Your task to perform on an android device: turn off picture-in-picture Image 0: 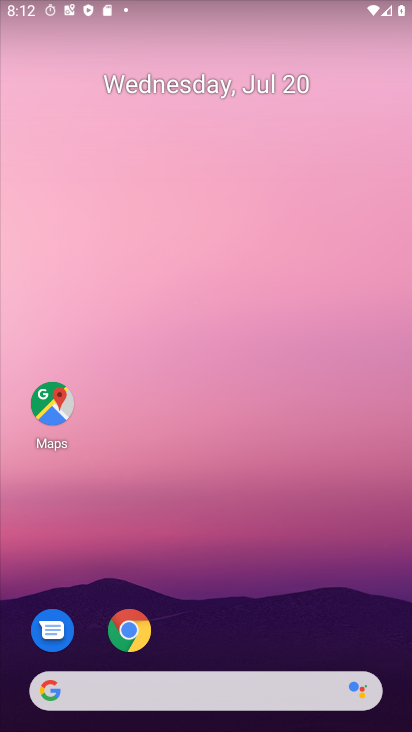
Step 0: drag from (200, 682) to (184, 194)
Your task to perform on an android device: turn off picture-in-picture Image 1: 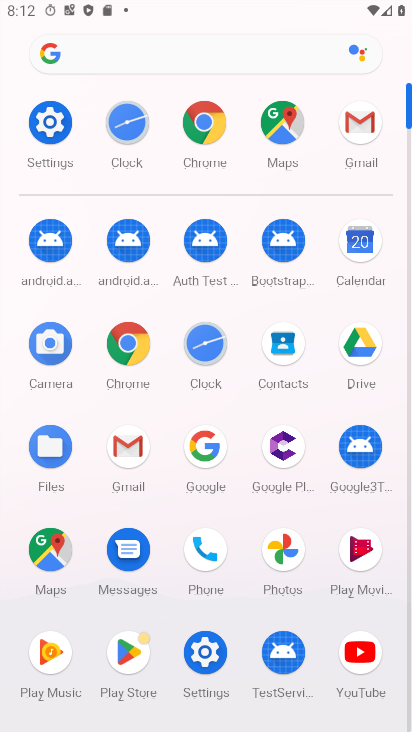
Step 1: click (200, 667)
Your task to perform on an android device: turn off picture-in-picture Image 2: 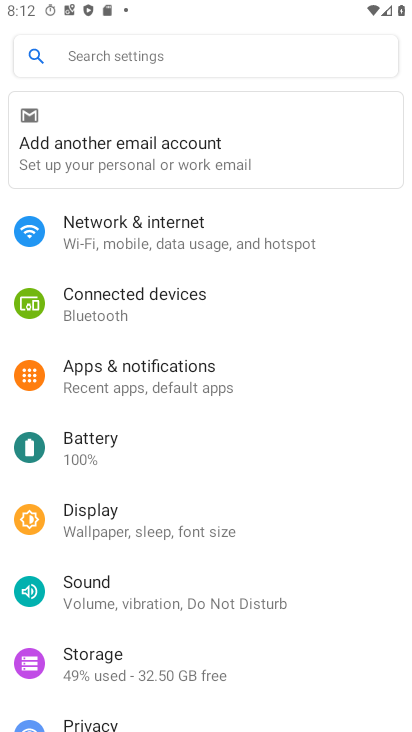
Step 2: drag from (273, 565) to (277, 409)
Your task to perform on an android device: turn off picture-in-picture Image 3: 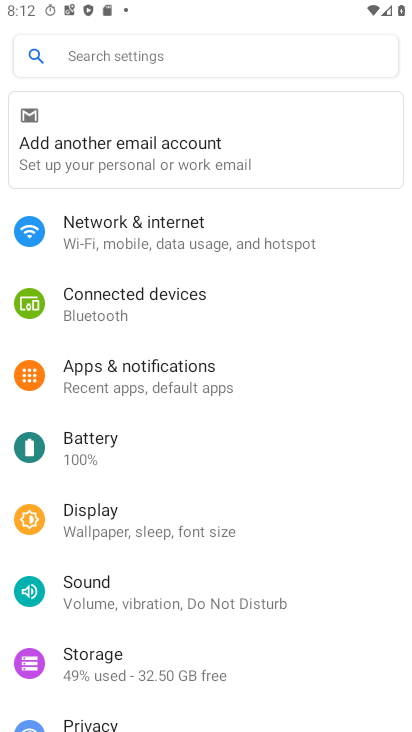
Step 3: drag from (205, 623) to (204, 395)
Your task to perform on an android device: turn off picture-in-picture Image 4: 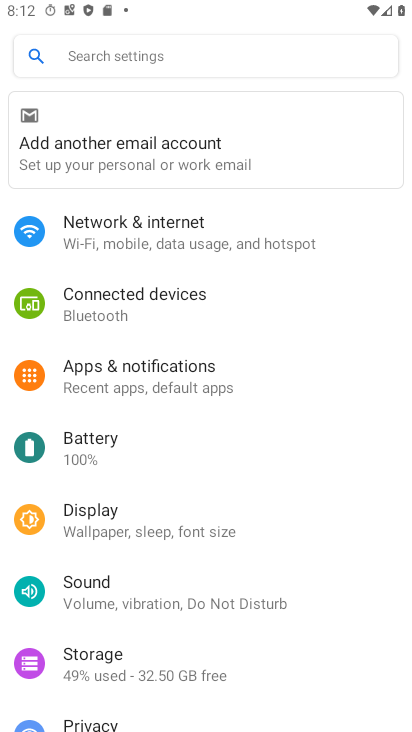
Step 4: drag from (236, 480) to (236, 276)
Your task to perform on an android device: turn off picture-in-picture Image 5: 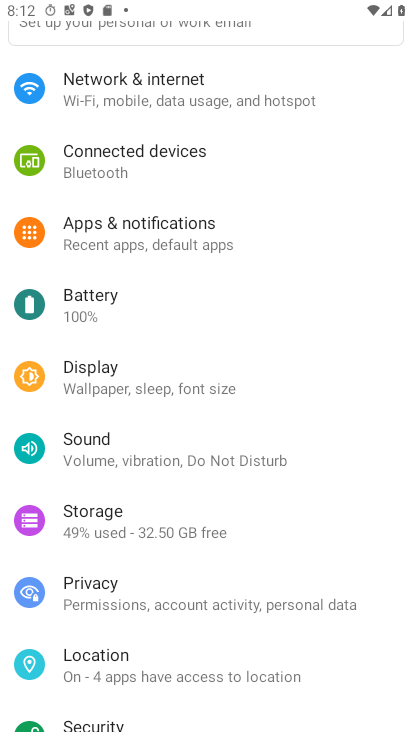
Step 5: drag from (173, 589) to (184, 452)
Your task to perform on an android device: turn off picture-in-picture Image 6: 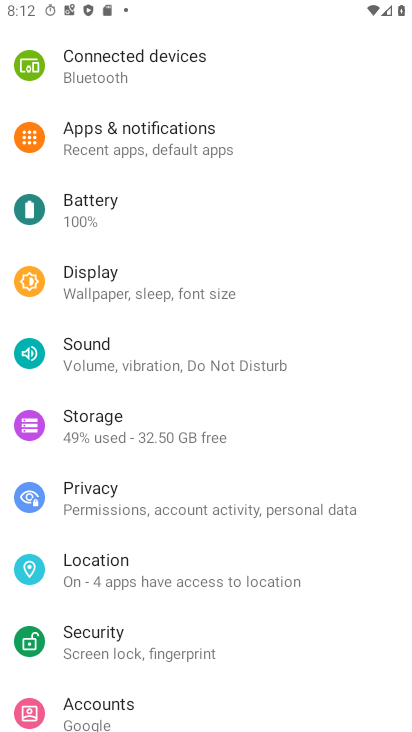
Step 6: click (214, 142)
Your task to perform on an android device: turn off picture-in-picture Image 7: 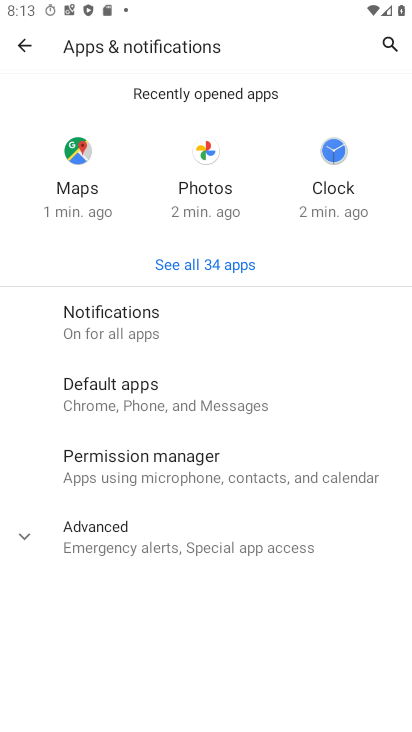
Step 7: click (107, 540)
Your task to perform on an android device: turn off picture-in-picture Image 8: 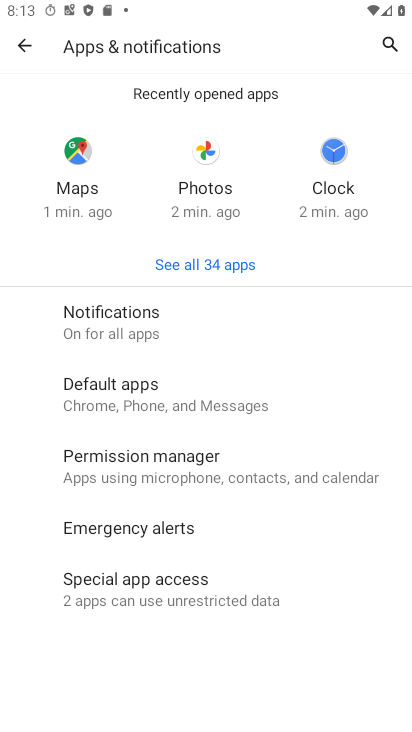
Step 8: click (178, 606)
Your task to perform on an android device: turn off picture-in-picture Image 9: 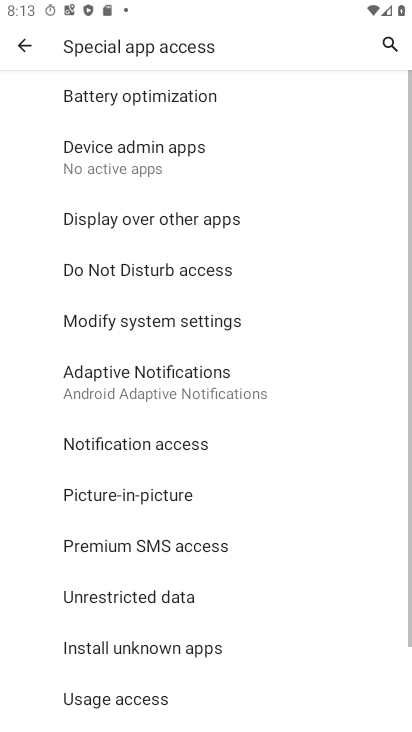
Step 9: drag from (220, 437) to (227, 397)
Your task to perform on an android device: turn off picture-in-picture Image 10: 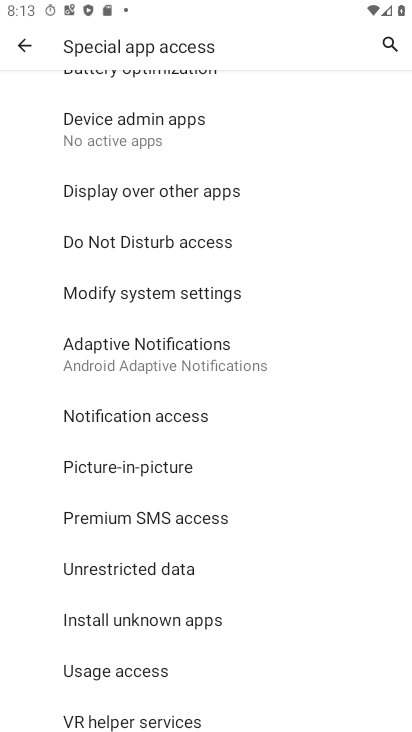
Step 10: drag from (189, 248) to (198, 507)
Your task to perform on an android device: turn off picture-in-picture Image 11: 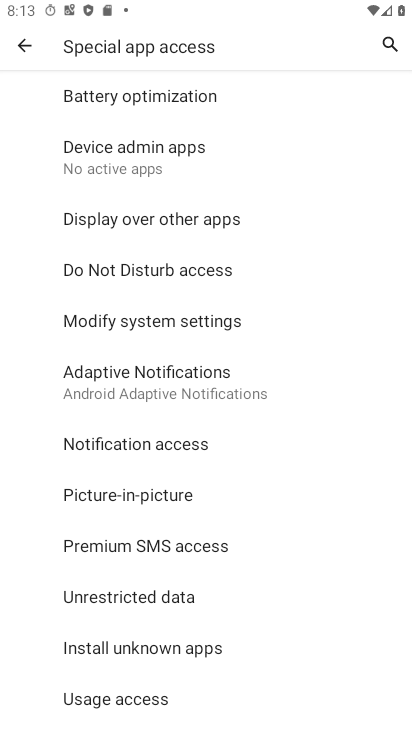
Step 11: click (125, 497)
Your task to perform on an android device: turn off picture-in-picture Image 12: 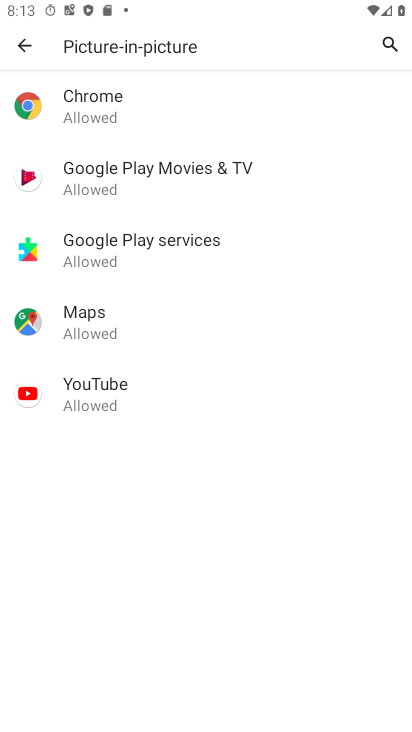
Step 12: click (149, 112)
Your task to perform on an android device: turn off picture-in-picture Image 13: 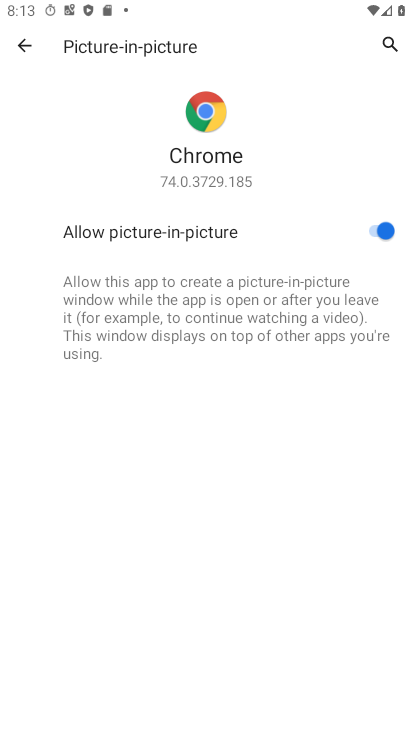
Step 13: click (367, 234)
Your task to perform on an android device: turn off picture-in-picture Image 14: 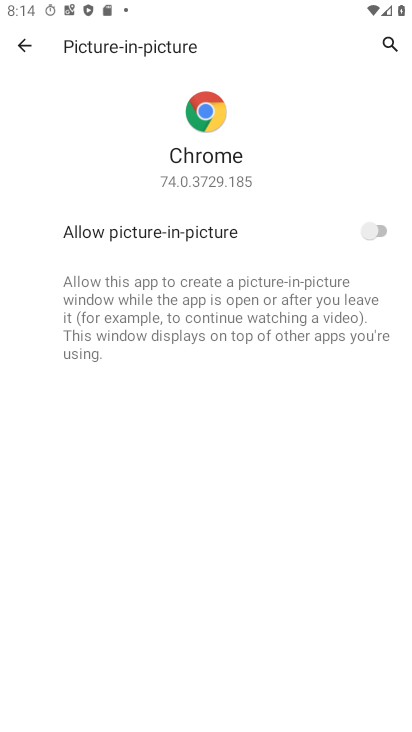
Step 14: task complete